Your task to perform on an android device: turn on sleep mode Image 0: 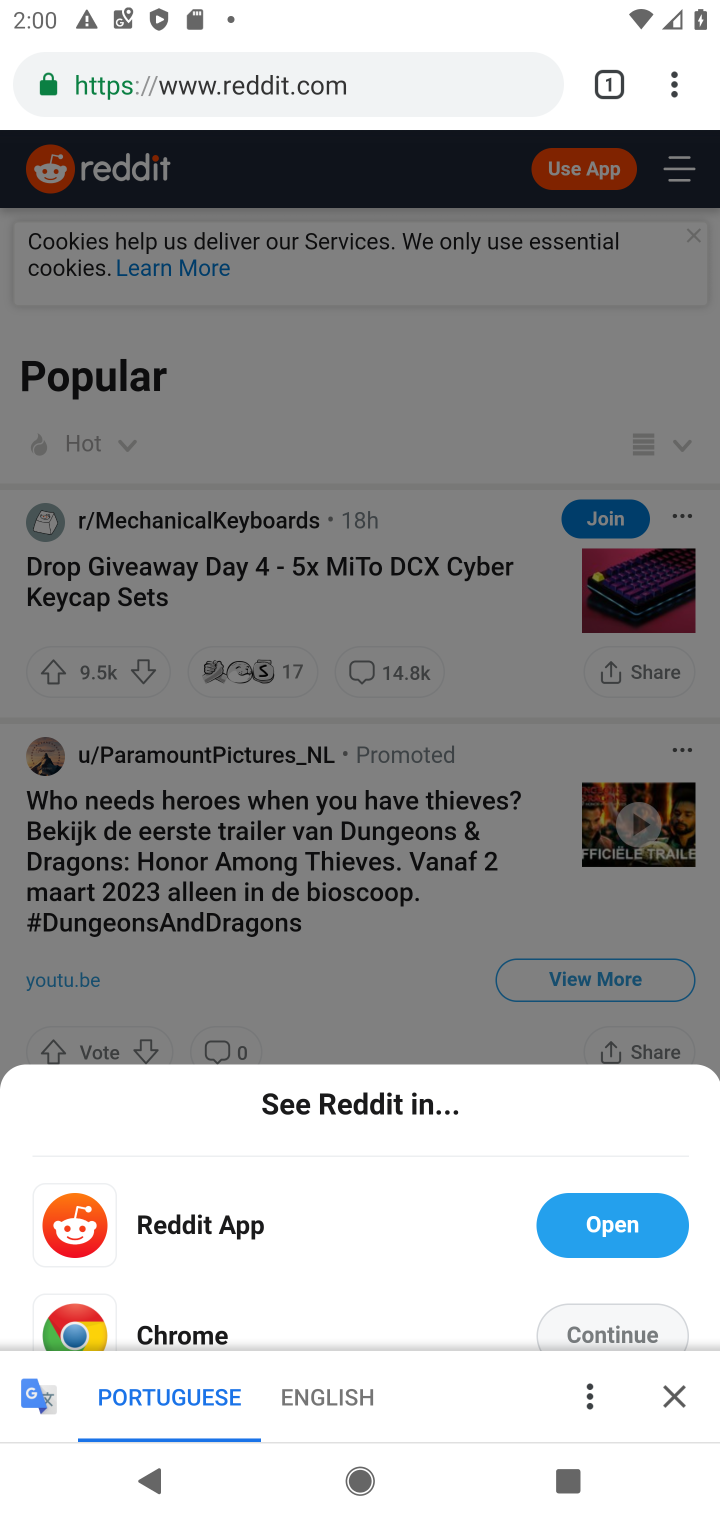
Step 0: press home button
Your task to perform on an android device: turn on sleep mode Image 1: 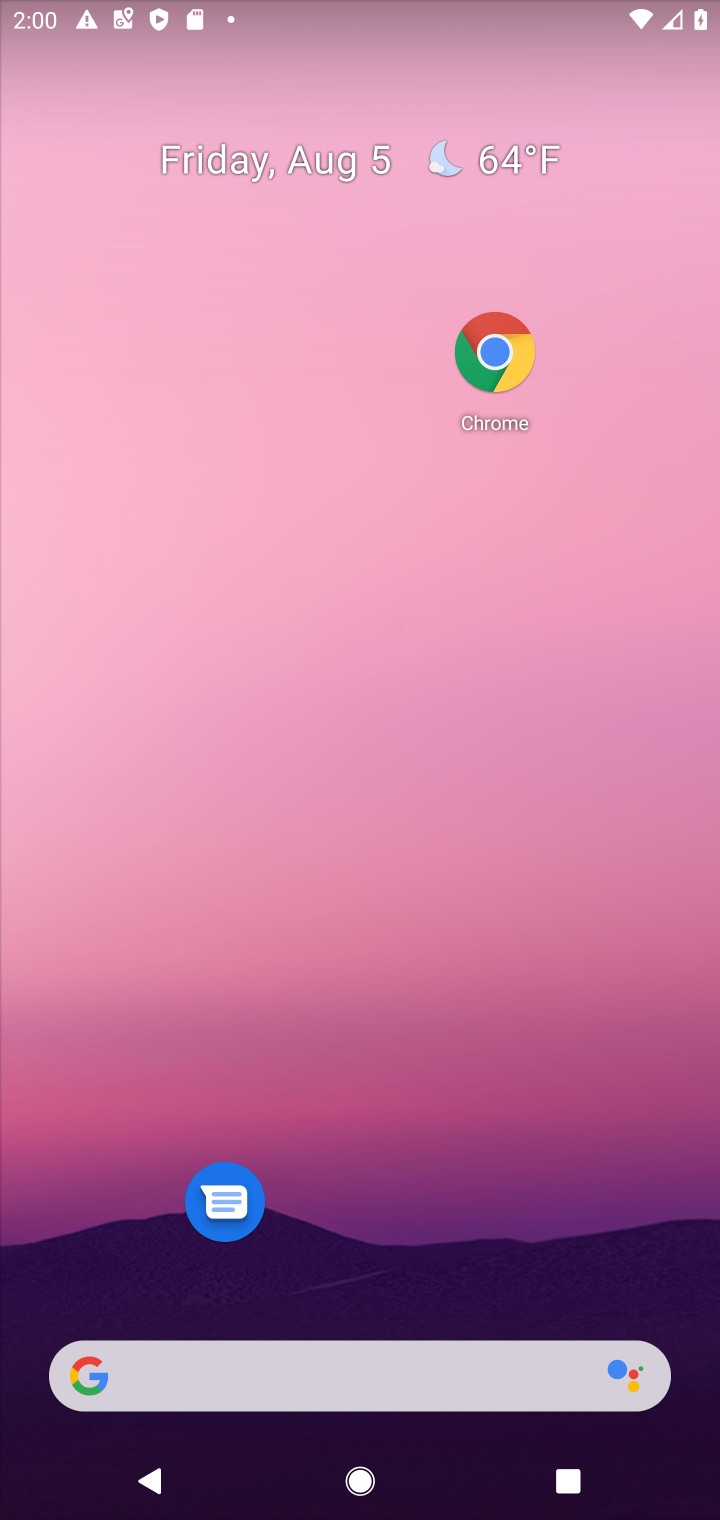
Step 1: drag from (491, 953) to (365, 208)
Your task to perform on an android device: turn on sleep mode Image 2: 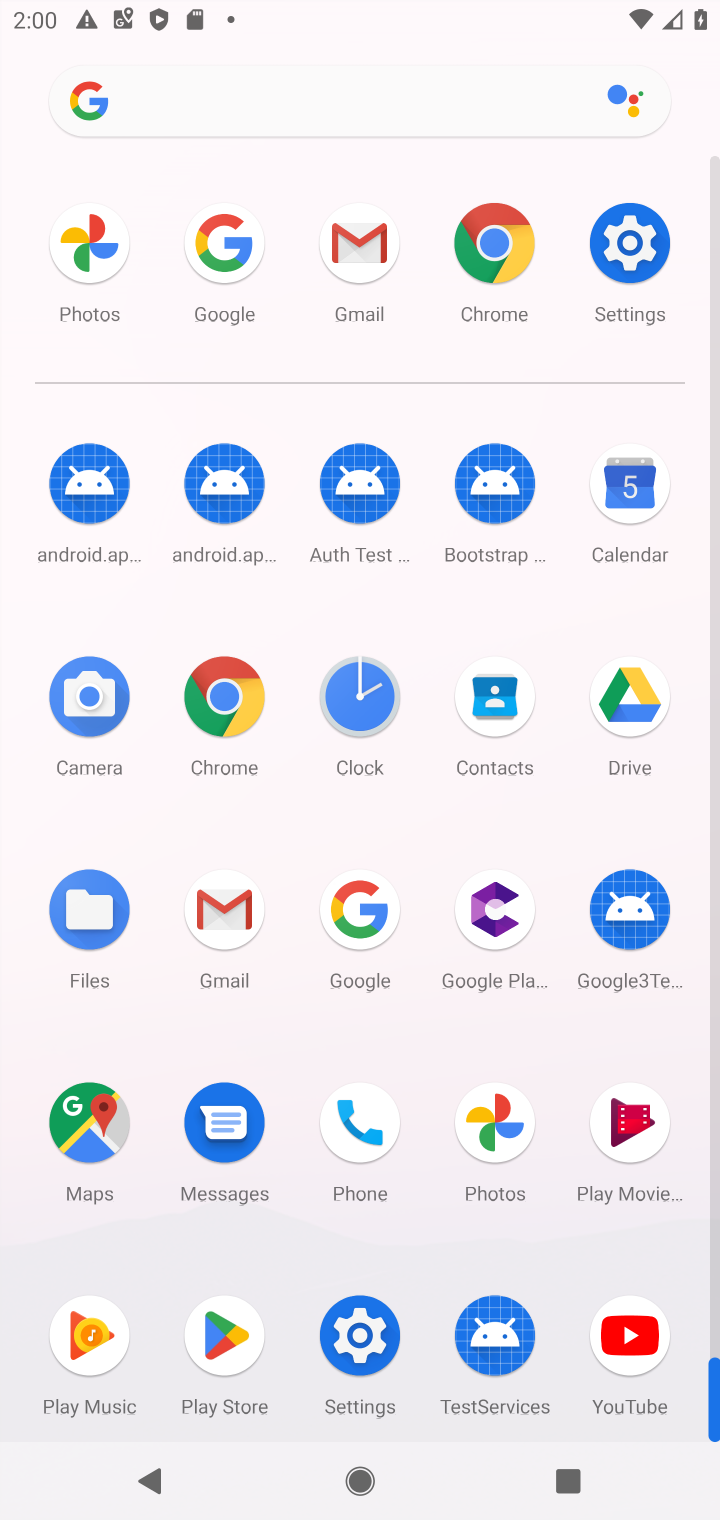
Step 2: click (355, 1351)
Your task to perform on an android device: turn on sleep mode Image 3: 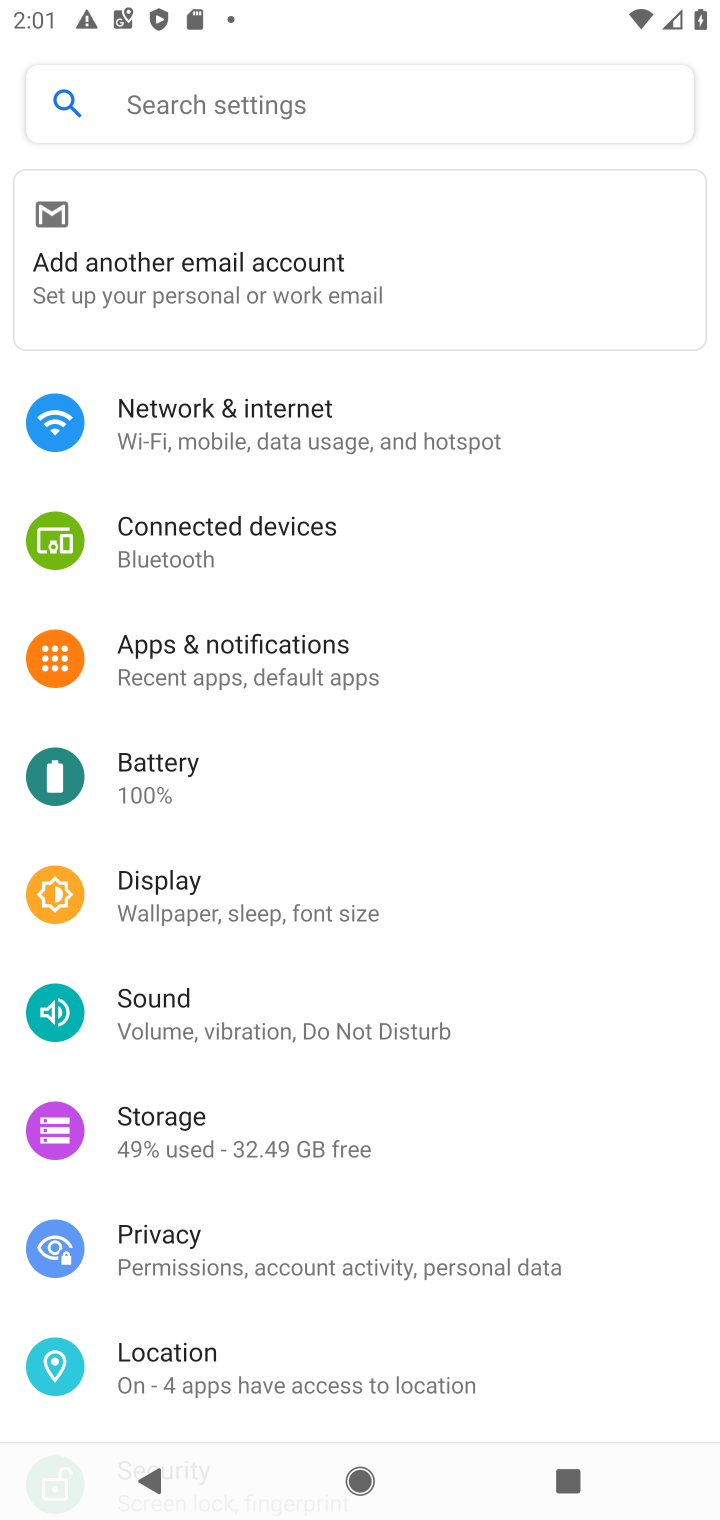
Step 3: click (199, 882)
Your task to perform on an android device: turn on sleep mode Image 4: 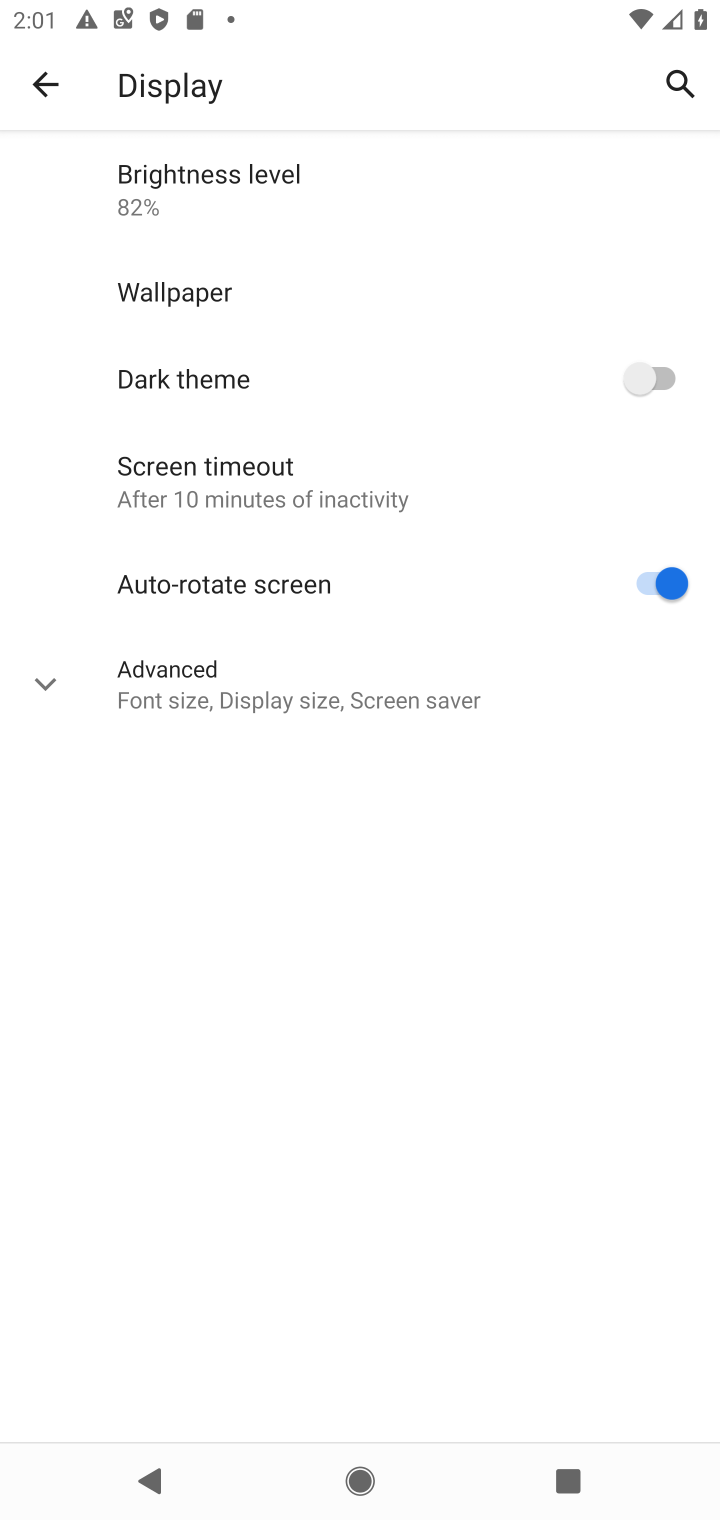
Step 4: click (253, 471)
Your task to perform on an android device: turn on sleep mode Image 5: 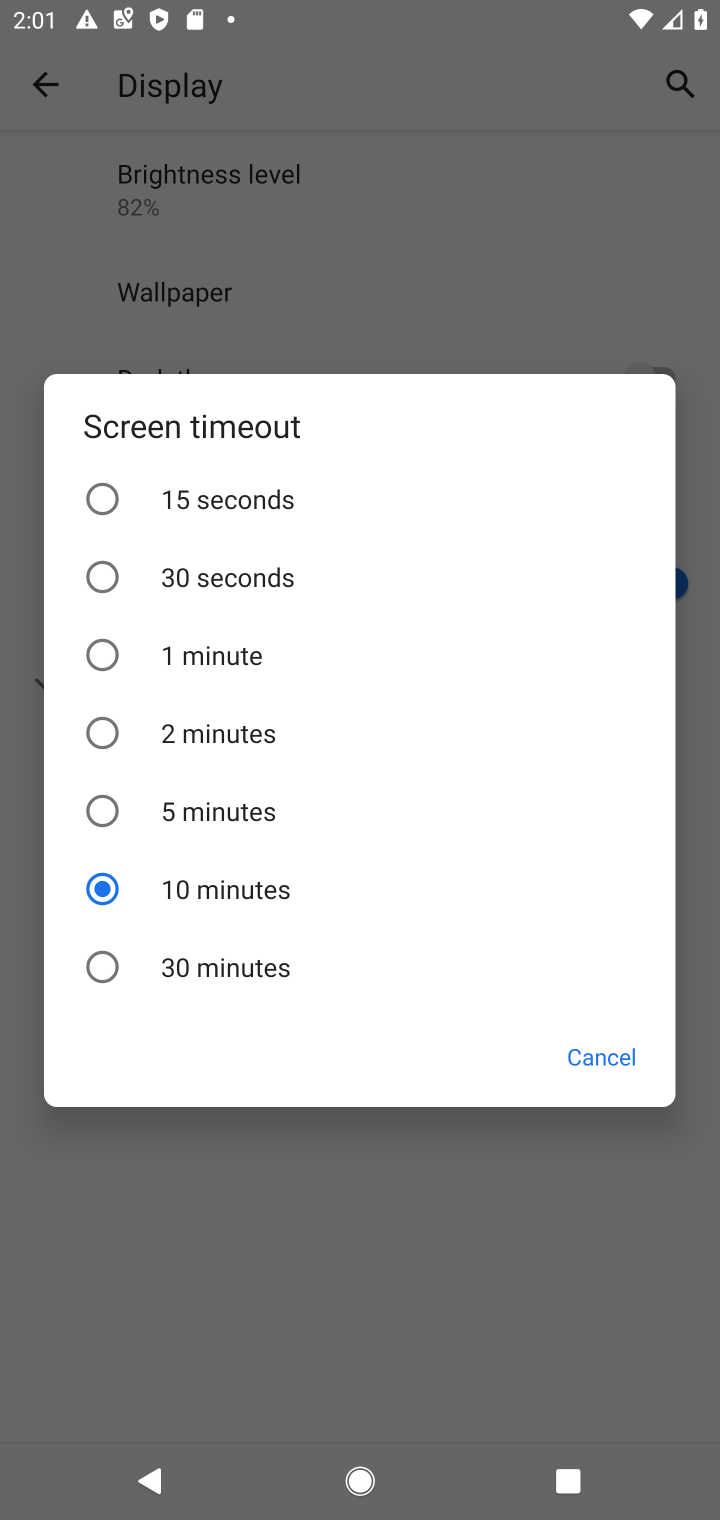
Step 5: task complete